Your task to perform on an android device: Open accessibility settings Image 0: 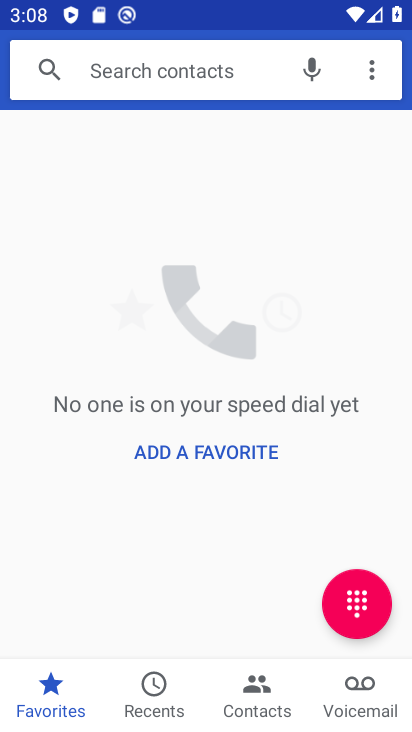
Step 0: press home button
Your task to perform on an android device: Open accessibility settings Image 1: 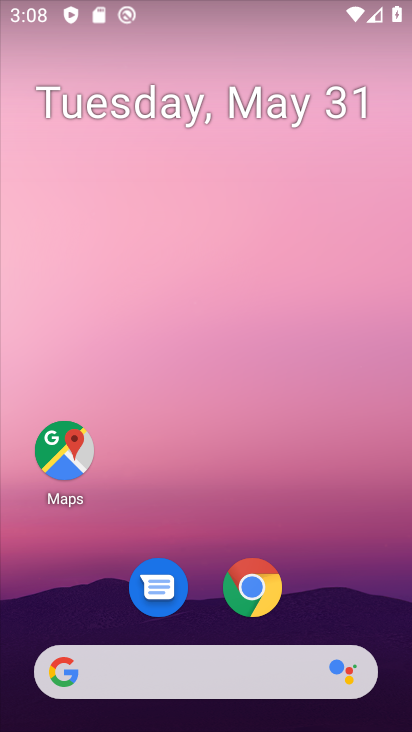
Step 1: drag from (326, 592) to (327, 33)
Your task to perform on an android device: Open accessibility settings Image 2: 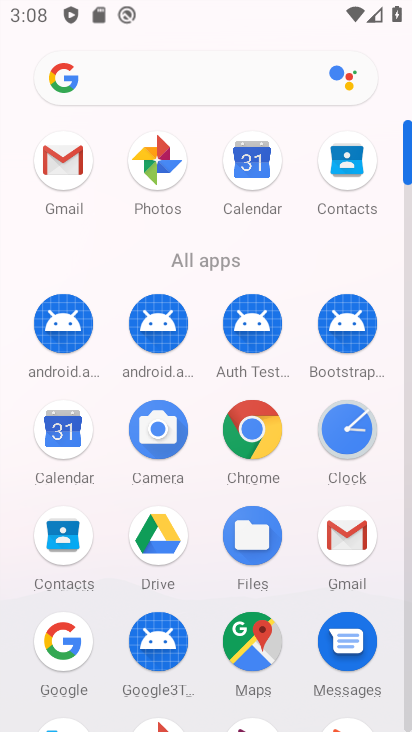
Step 2: drag from (195, 489) to (251, 105)
Your task to perform on an android device: Open accessibility settings Image 3: 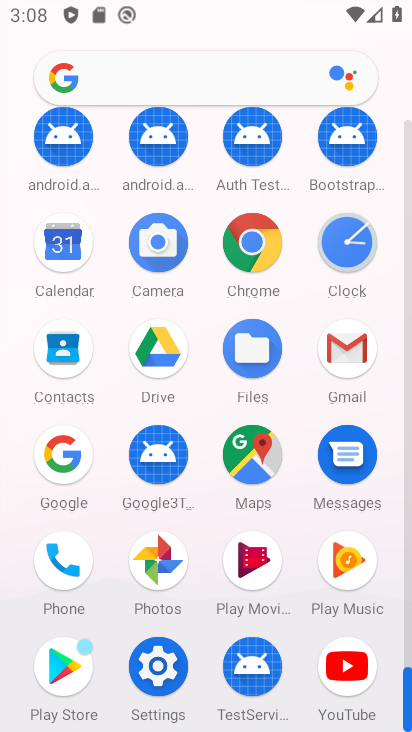
Step 3: click (153, 678)
Your task to perform on an android device: Open accessibility settings Image 4: 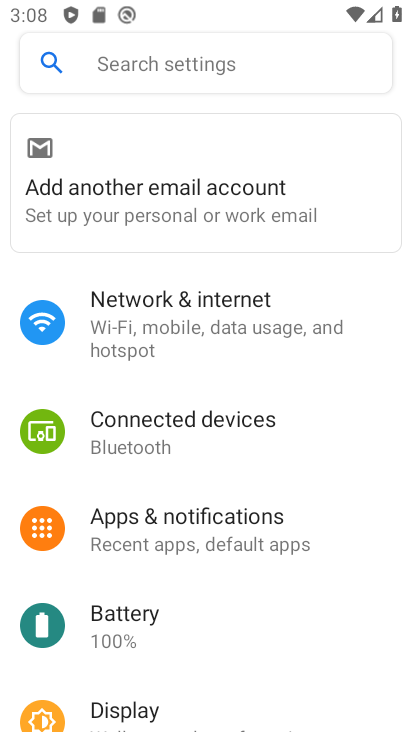
Step 4: drag from (230, 694) to (243, 95)
Your task to perform on an android device: Open accessibility settings Image 5: 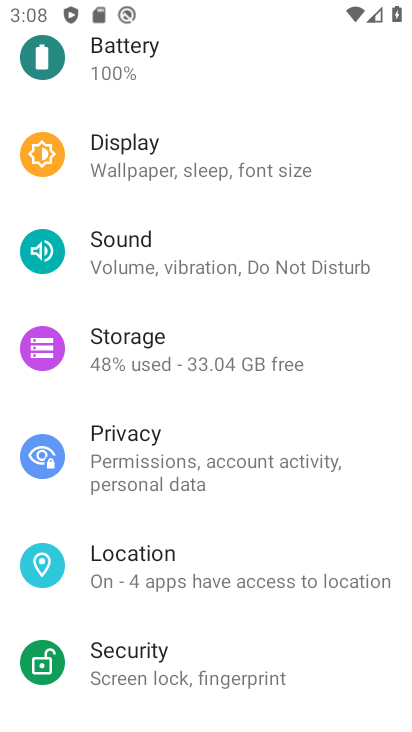
Step 5: drag from (234, 691) to (228, 209)
Your task to perform on an android device: Open accessibility settings Image 6: 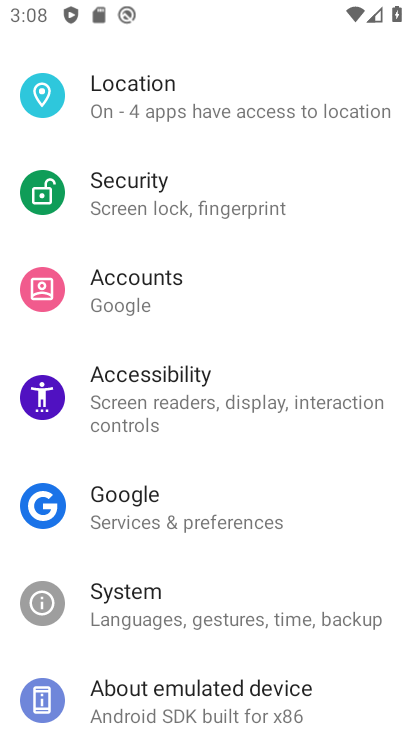
Step 6: click (117, 404)
Your task to perform on an android device: Open accessibility settings Image 7: 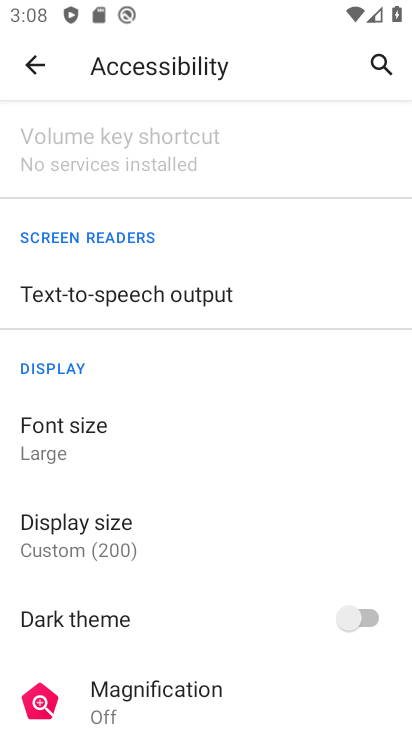
Step 7: task complete